Your task to perform on an android device: set default search engine in the chrome app Image 0: 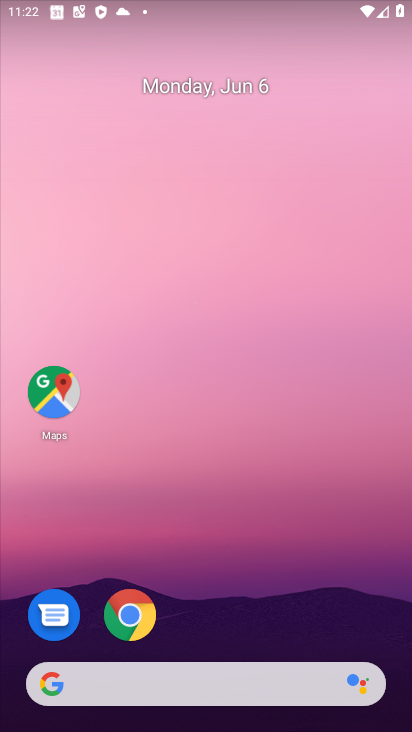
Step 0: click (126, 614)
Your task to perform on an android device: set default search engine in the chrome app Image 1: 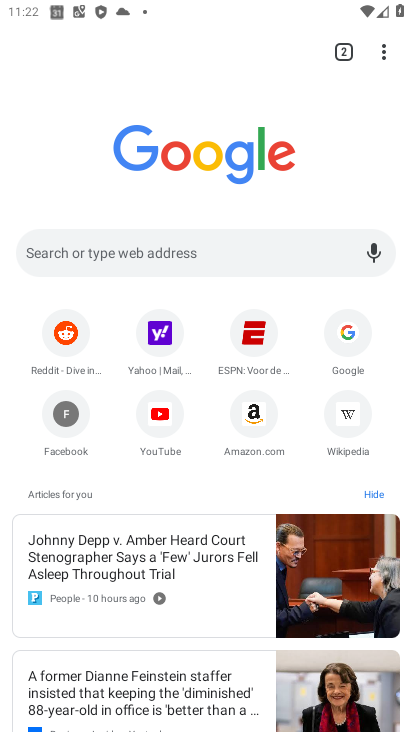
Step 1: task complete